Your task to perform on an android device: Go to Wikipedia Image 0: 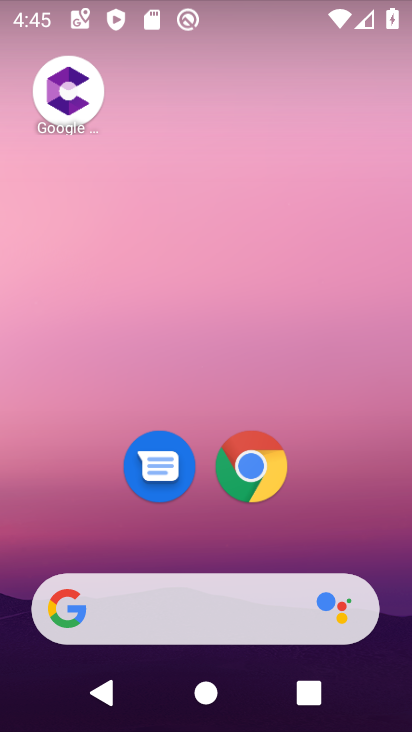
Step 0: click (251, 466)
Your task to perform on an android device: Go to Wikipedia Image 1: 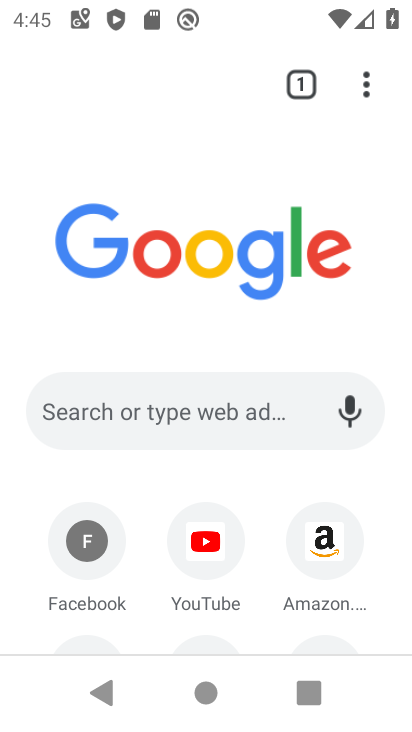
Step 1: click (141, 413)
Your task to perform on an android device: Go to Wikipedia Image 2: 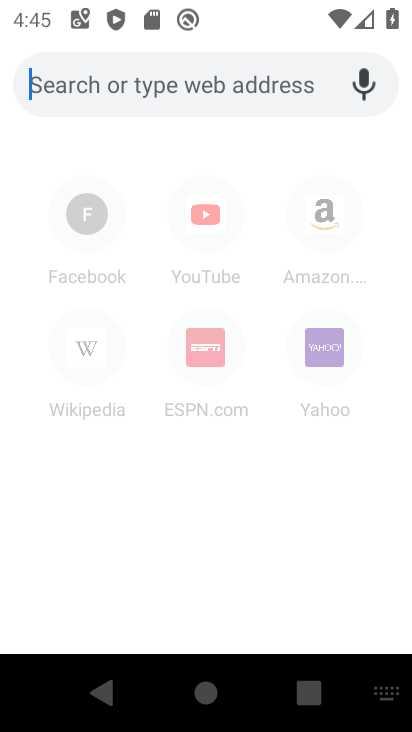
Step 2: type "wikipedia"
Your task to perform on an android device: Go to Wikipedia Image 3: 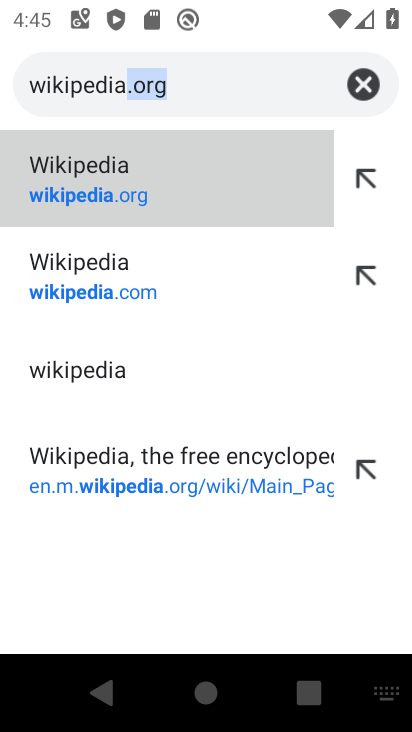
Step 3: click (89, 169)
Your task to perform on an android device: Go to Wikipedia Image 4: 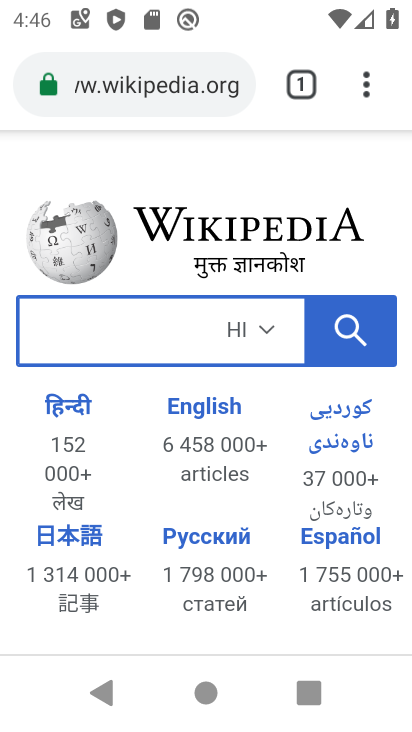
Step 4: task complete